Your task to perform on an android device: Go to notification settings Image 0: 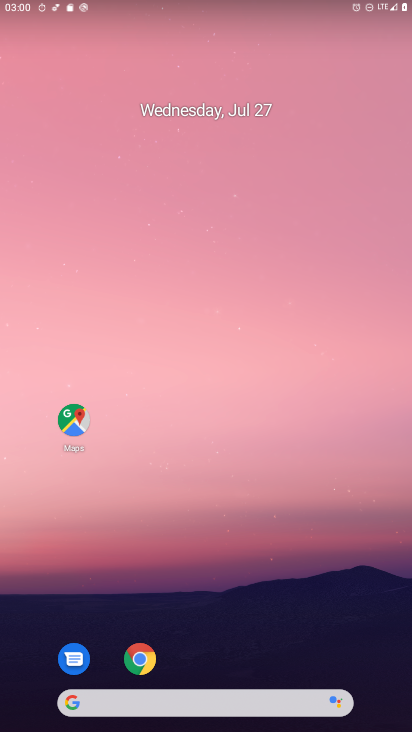
Step 0: drag from (288, 622) to (267, 169)
Your task to perform on an android device: Go to notification settings Image 1: 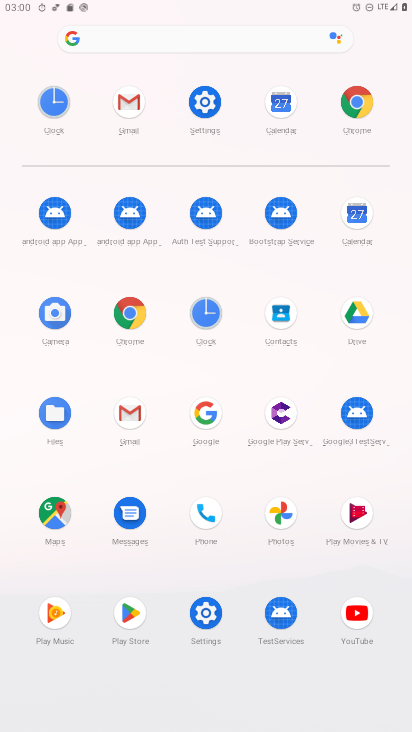
Step 1: click (207, 104)
Your task to perform on an android device: Go to notification settings Image 2: 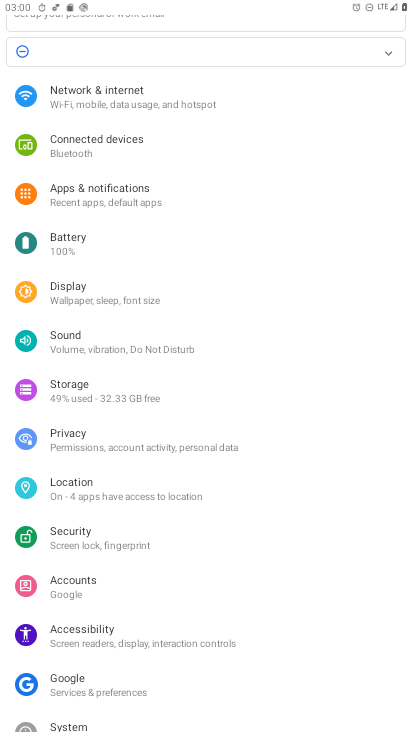
Step 2: click (95, 209)
Your task to perform on an android device: Go to notification settings Image 3: 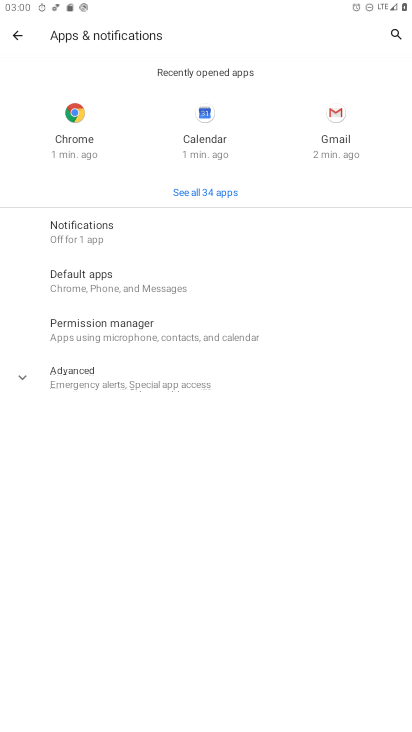
Step 3: click (88, 231)
Your task to perform on an android device: Go to notification settings Image 4: 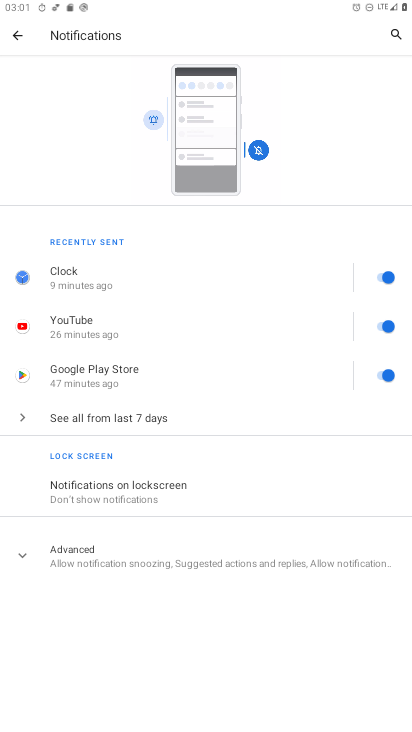
Step 4: task complete